Your task to perform on an android device: delete browsing data in the chrome app Image 0: 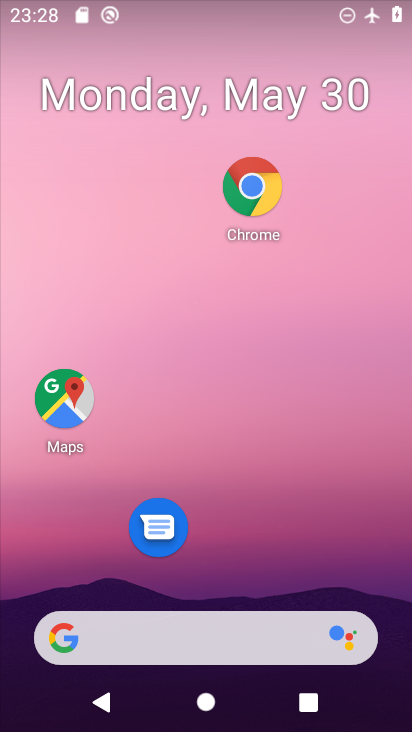
Step 0: drag from (267, 516) to (244, 270)
Your task to perform on an android device: delete browsing data in the chrome app Image 1: 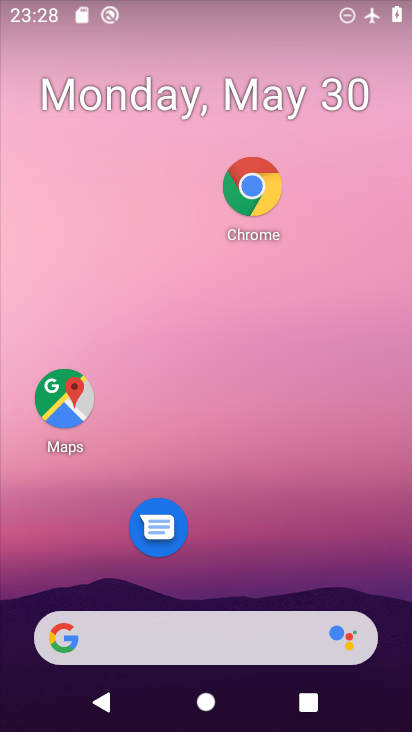
Step 1: drag from (321, 535) to (314, 94)
Your task to perform on an android device: delete browsing data in the chrome app Image 2: 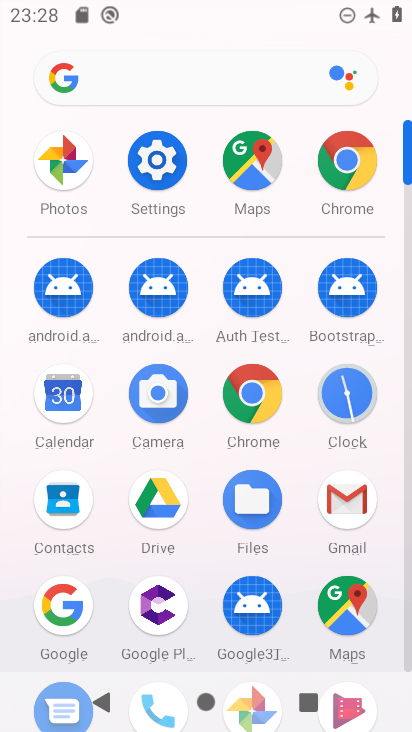
Step 2: click (249, 392)
Your task to perform on an android device: delete browsing data in the chrome app Image 3: 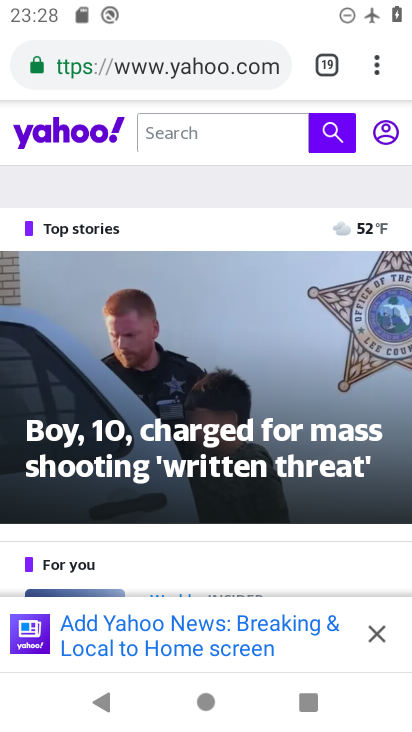
Step 3: click (374, 57)
Your task to perform on an android device: delete browsing data in the chrome app Image 4: 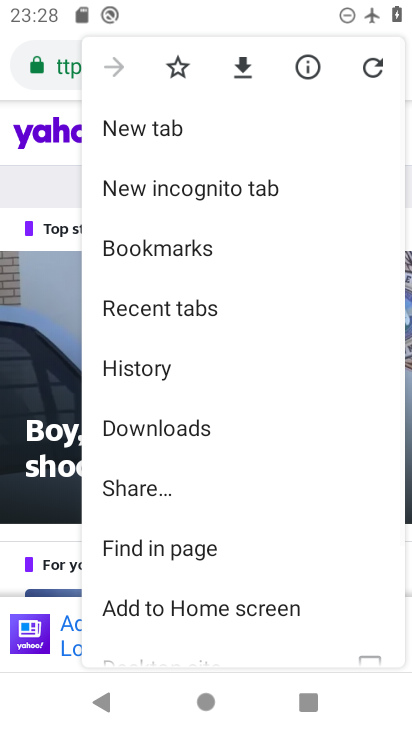
Step 4: drag from (233, 558) to (247, 228)
Your task to perform on an android device: delete browsing data in the chrome app Image 5: 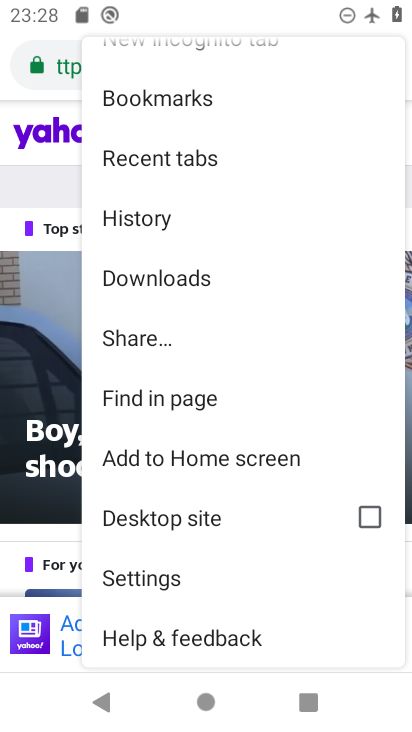
Step 5: drag from (179, 546) to (240, 253)
Your task to perform on an android device: delete browsing data in the chrome app Image 6: 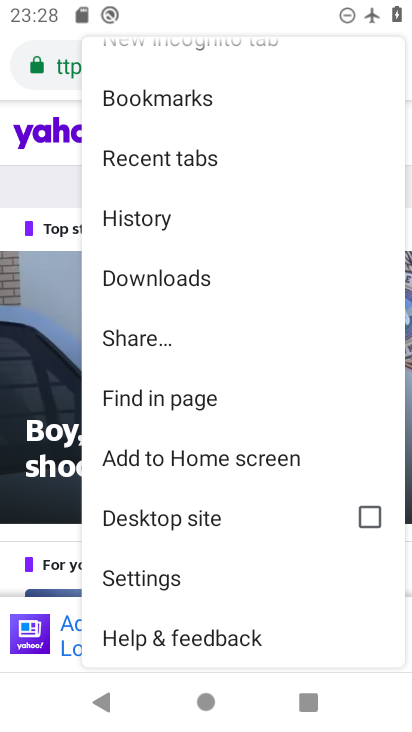
Step 6: click (156, 579)
Your task to perform on an android device: delete browsing data in the chrome app Image 7: 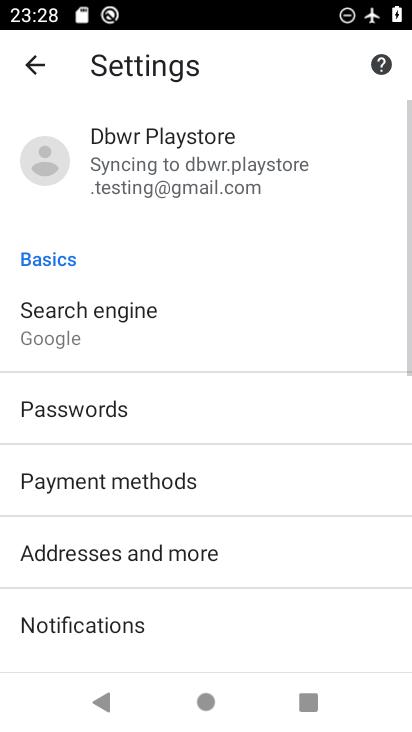
Step 7: drag from (155, 526) to (185, 190)
Your task to perform on an android device: delete browsing data in the chrome app Image 8: 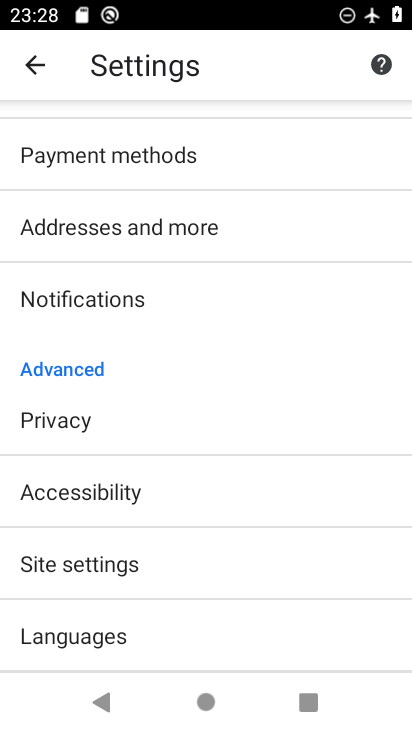
Step 8: drag from (163, 553) to (171, 359)
Your task to perform on an android device: delete browsing data in the chrome app Image 9: 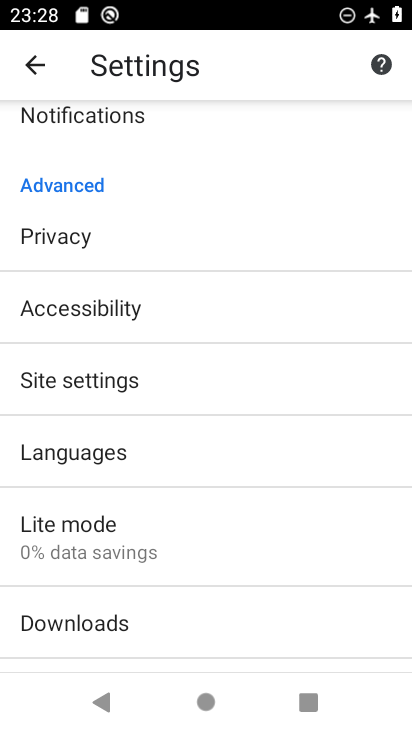
Step 9: click (82, 239)
Your task to perform on an android device: delete browsing data in the chrome app Image 10: 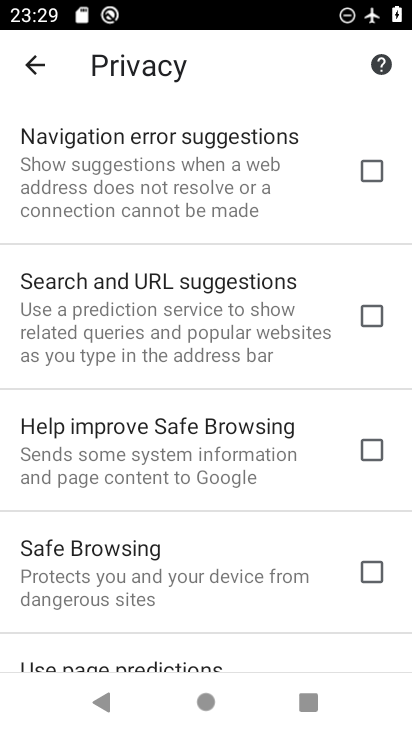
Step 10: drag from (234, 542) to (289, 118)
Your task to perform on an android device: delete browsing data in the chrome app Image 11: 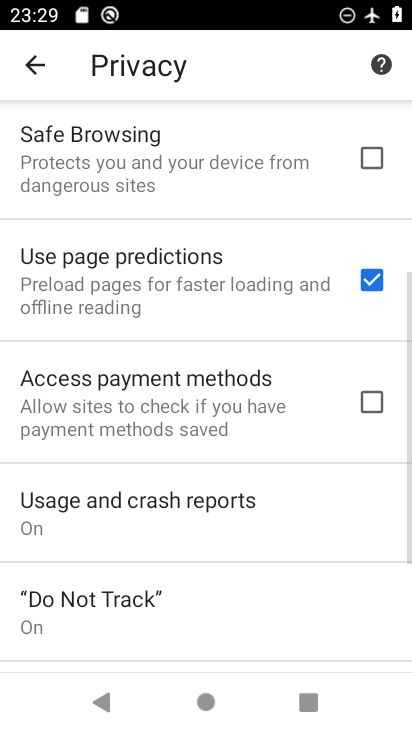
Step 11: drag from (262, 523) to (291, 222)
Your task to perform on an android device: delete browsing data in the chrome app Image 12: 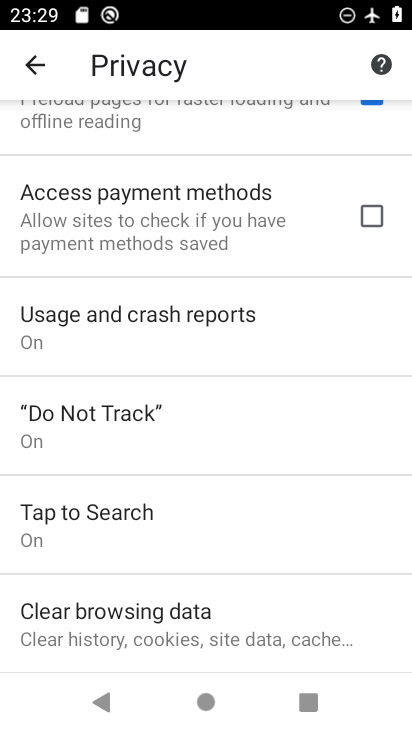
Step 12: click (303, 629)
Your task to perform on an android device: delete browsing data in the chrome app Image 13: 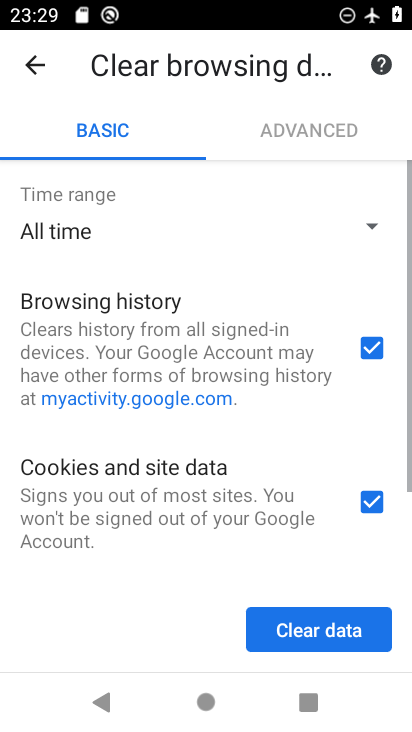
Step 13: click (308, 636)
Your task to perform on an android device: delete browsing data in the chrome app Image 14: 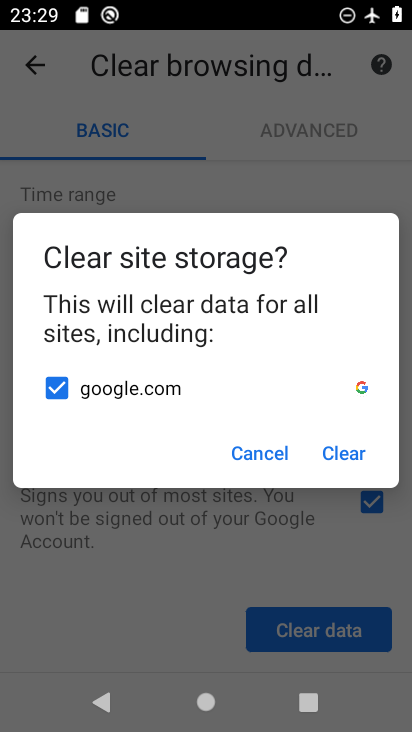
Step 14: click (334, 456)
Your task to perform on an android device: delete browsing data in the chrome app Image 15: 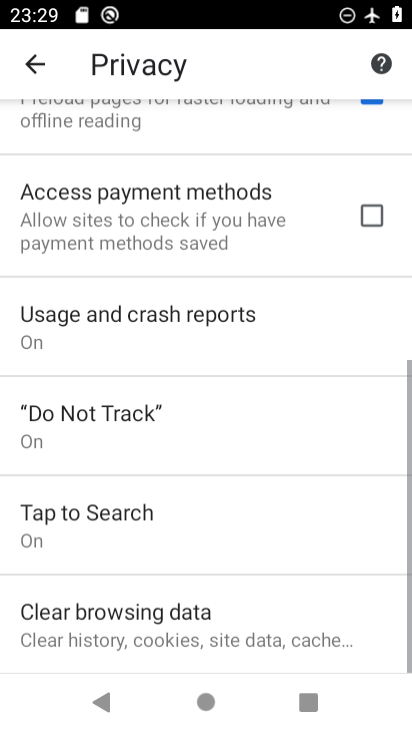
Step 15: task complete